Your task to perform on an android device: open sync settings in chrome Image 0: 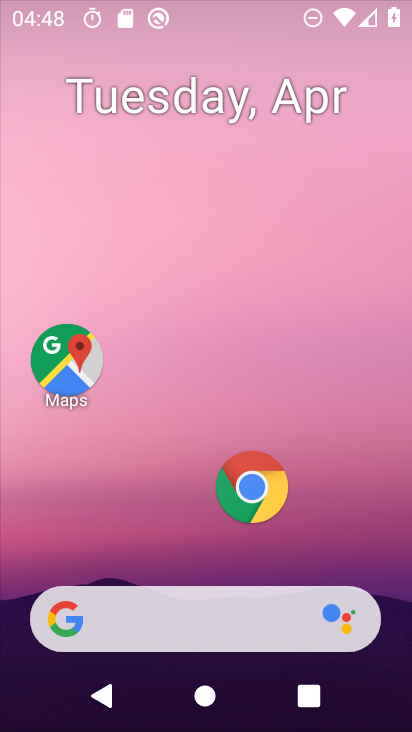
Step 0: drag from (241, 500) to (278, 7)
Your task to perform on an android device: open sync settings in chrome Image 1: 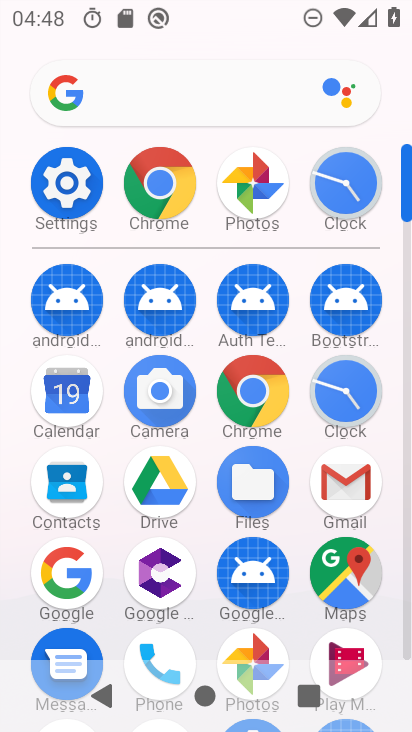
Step 1: click (65, 176)
Your task to perform on an android device: open sync settings in chrome Image 2: 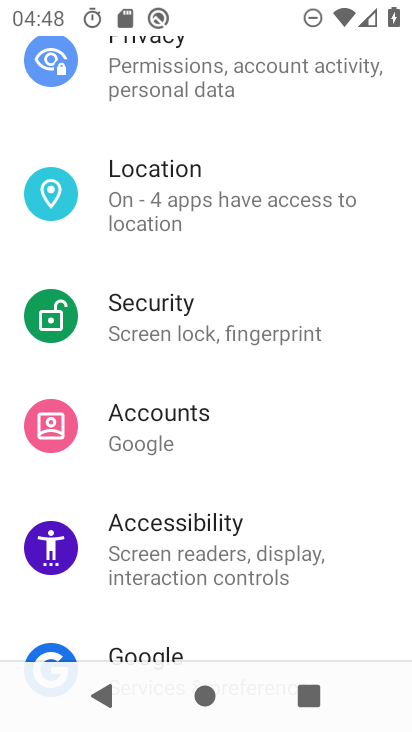
Step 2: press home button
Your task to perform on an android device: open sync settings in chrome Image 3: 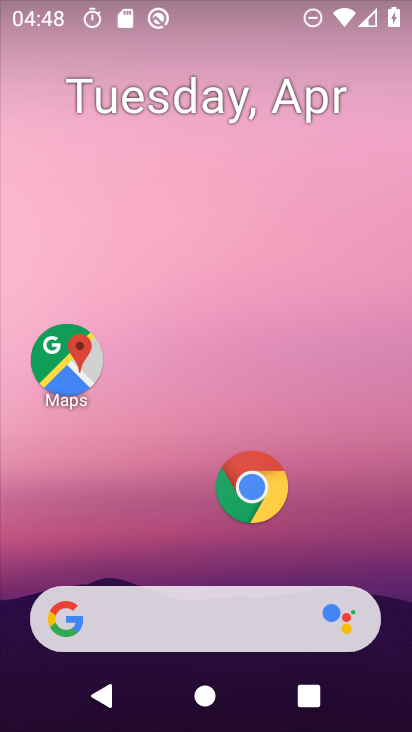
Step 3: click (244, 484)
Your task to perform on an android device: open sync settings in chrome Image 4: 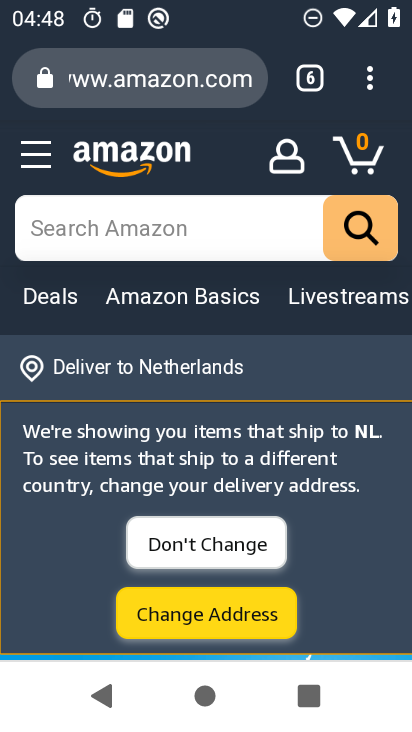
Step 4: drag from (372, 72) to (125, 536)
Your task to perform on an android device: open sync settings in chrome Image 5: 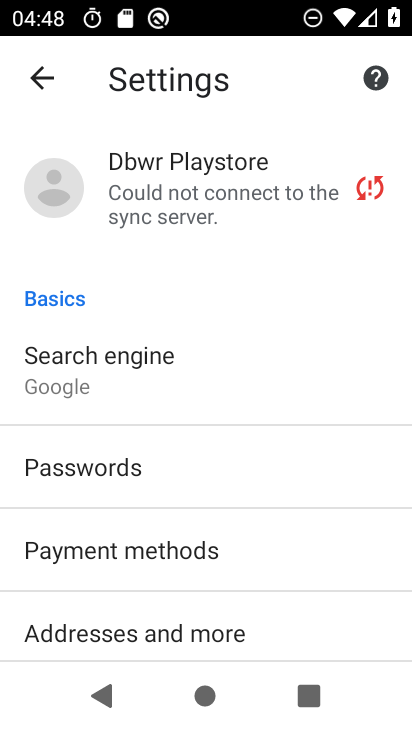
Step 5: click (183, 181)
Your task to perform on an android device: open sync settings in chrome Image 6: 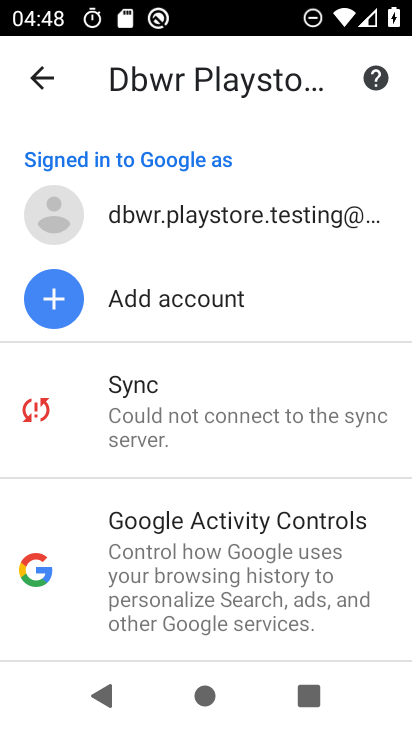
Step 6: click (217, 406)
Your task to perform on an android device: open sync settings in chrome Image 7: 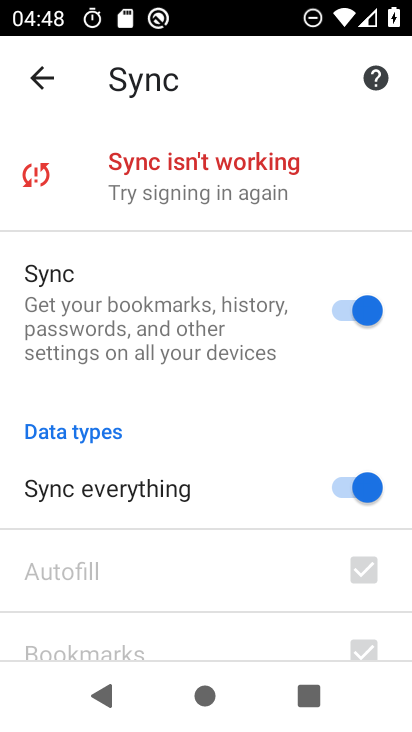
Step 7: task complete